Your task to perform on an android device: Search for vegetarian restaurants on Maps Image 0: 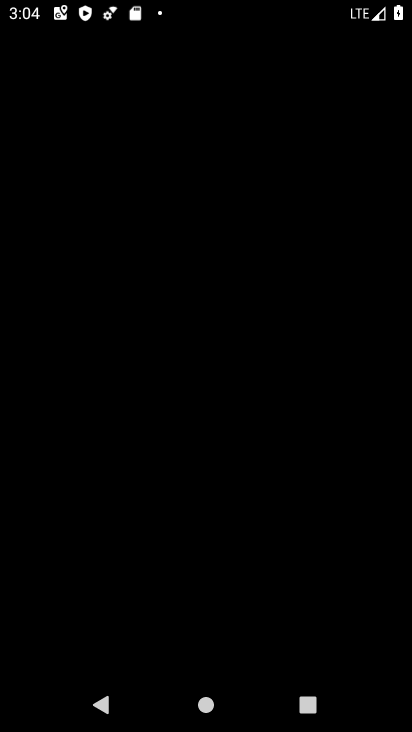
Step 0: press home button
Your task to perform on an android device: Search for vegetarian restaurants on Maps Image 1: 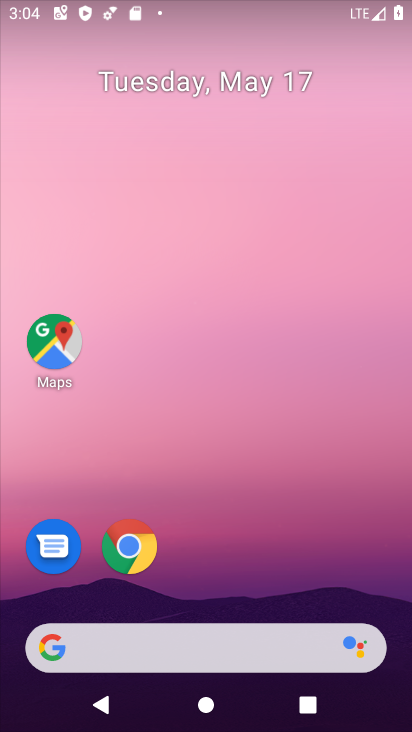
Step 1: click (52, 313)
Your task to perform on an android device: Search for vegetarian restaurants on Maps Image 2: 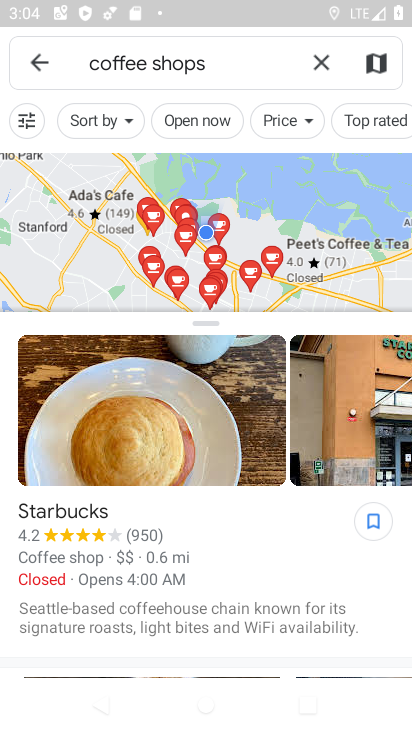
Step 2: click (323, 58)
Your task to perform on an android device: Search for vegetarian restaurants on Maps Image 3: 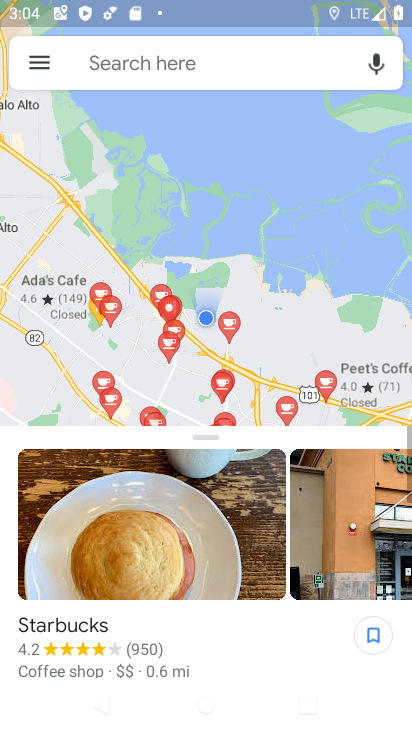
Step 3: click (186, 70)
Your task to perform on an android device: Search for vegetarian restaurants on Maps Image 4: 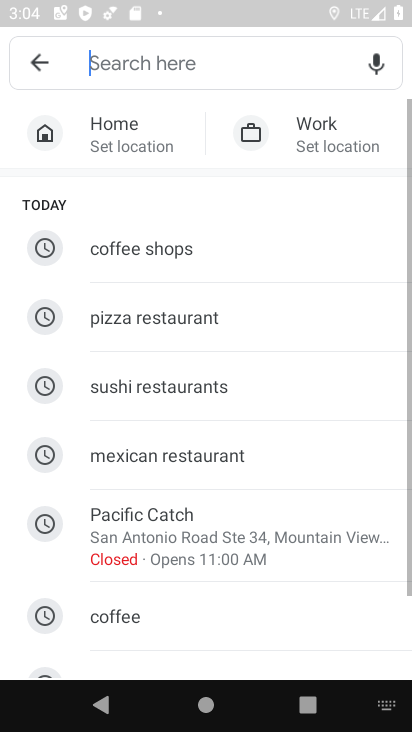
Step 4: click (218, 64)
Your task to perform on an android device: Search for vegetarian restaurants on Maps Image 5: 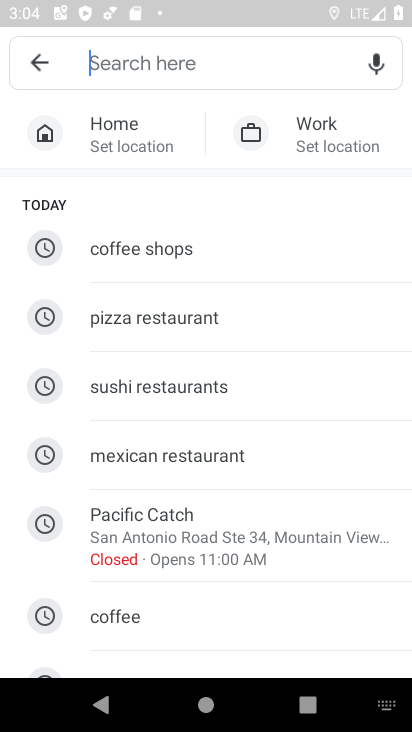
Step 5: type "vegetarian restaurants "
Your task to perform on an android device: Search for vegetarian restaurants on Maps Image 6: 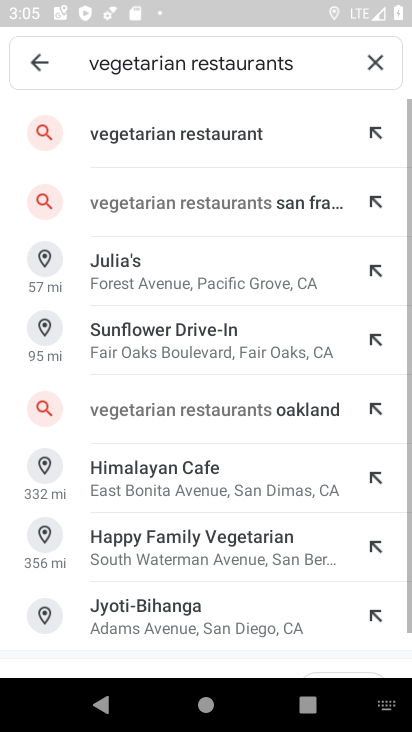
Step 6: click (241, 122)
Your task to perform on an android device: Search for vegetarian restaurants on Maps Image 7: 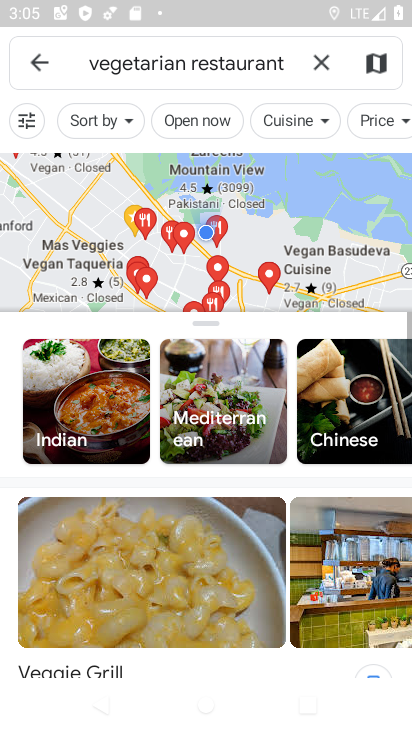
Step 7: task complete